Your task to perform on an android device: move a message to another label in the gmail app Image 0: 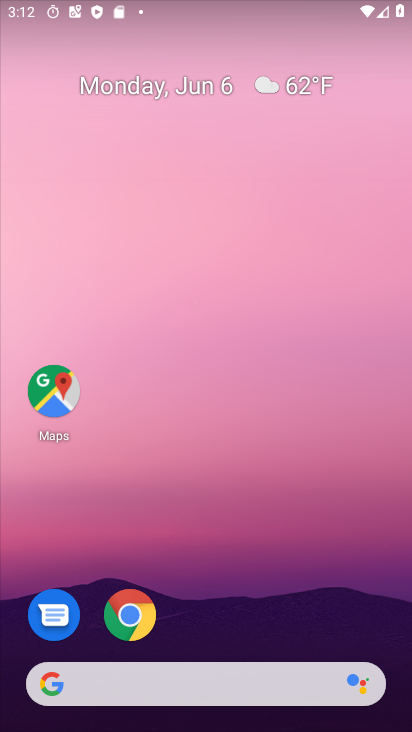
Step 0: drag from (287, 695) to (406, 89)
Your task to perform on an android device: move a message to another label in the gmail app Image 1: 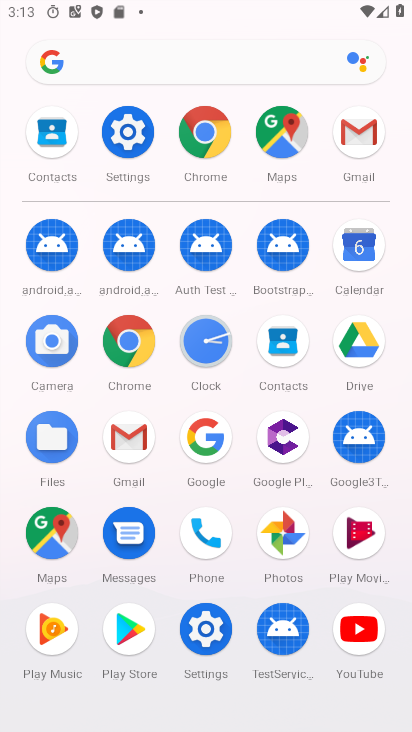
Step 1: click (129, 435)
Your task to perform on an android device: move a message to another label in the gmail app Image 2: 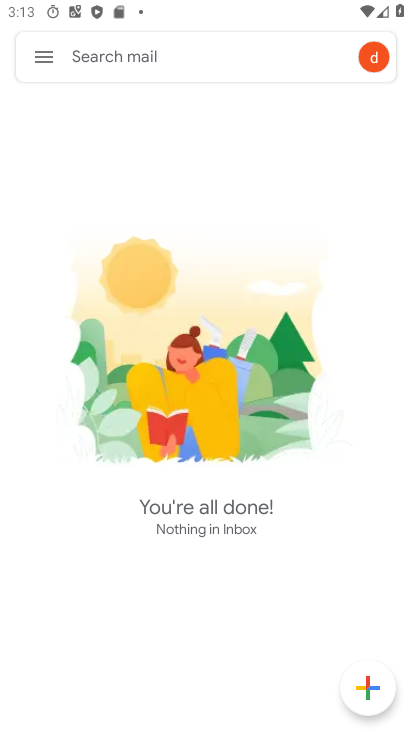
Step 2: click (35, 65)
Your task to perform on an android device: move a message to another label in the gmail app Image 3: 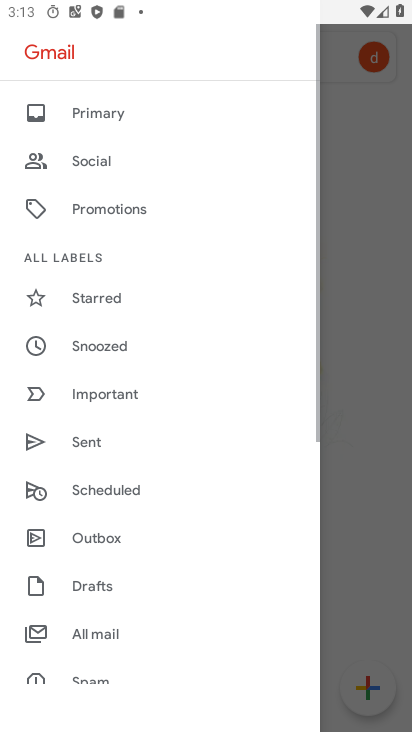
Step 3: task complete